Your task to perform on an android device: Open settings Image 0: 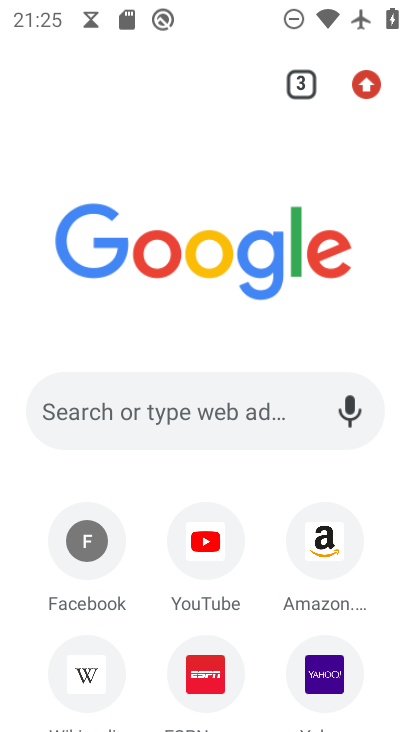
Step 0: press home button
Your task to perform on an android device: Open settings Image 1: 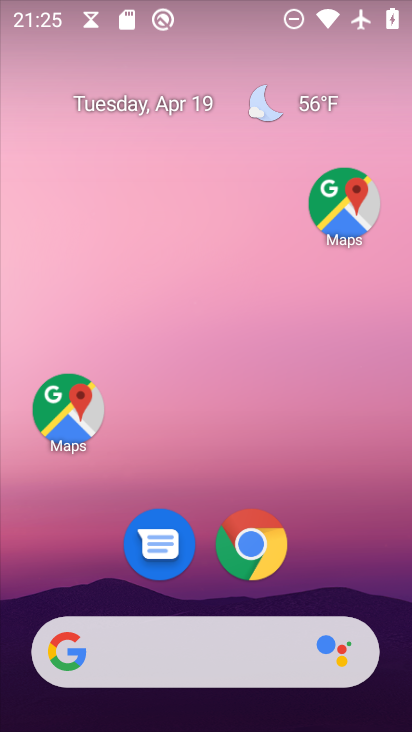
Step 1: drag from (189, 614) to (326, 63)
Your task to perform on an android device: Open settings Image 2: 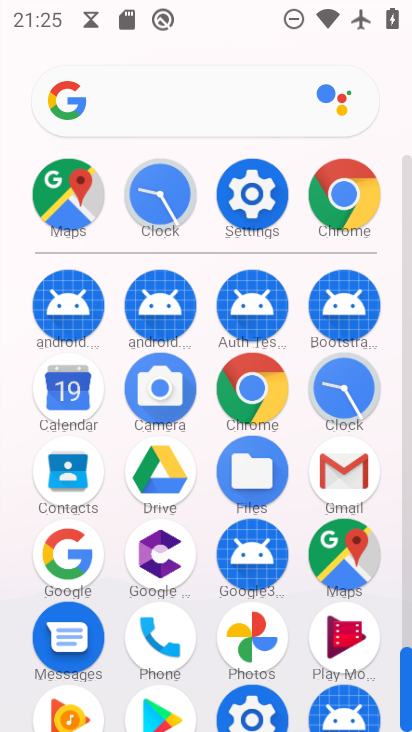
Step 2: click (258, 197)
Your task to perform on an android device: Open settings Image 3: 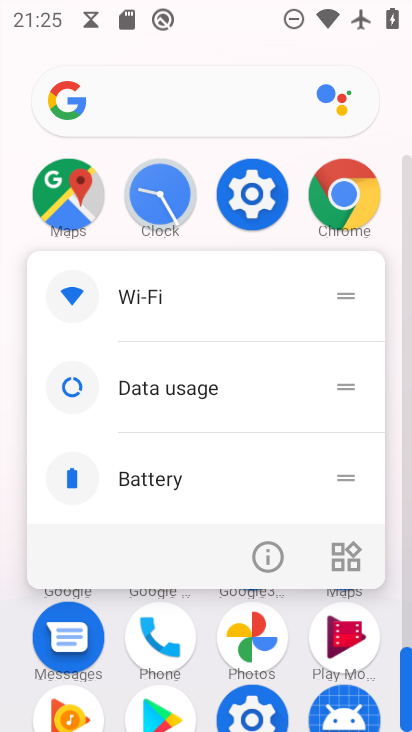
Step 3: click (255, 201)
Your task to perform on an android device: Open settings Image 4: 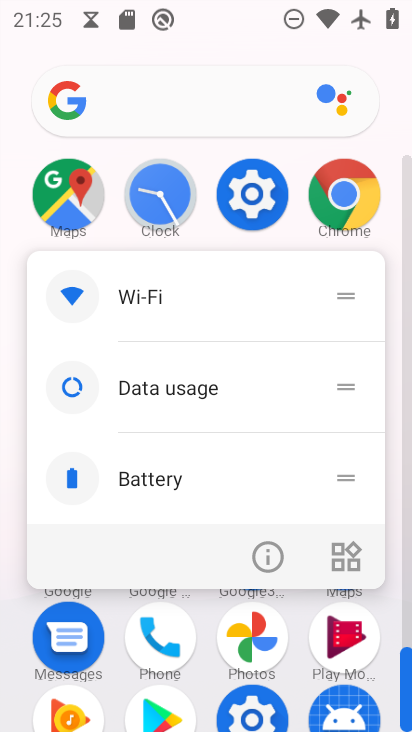
Step 4: click (251, 202)
Your task to perform on an android device: Open settings Image 5: 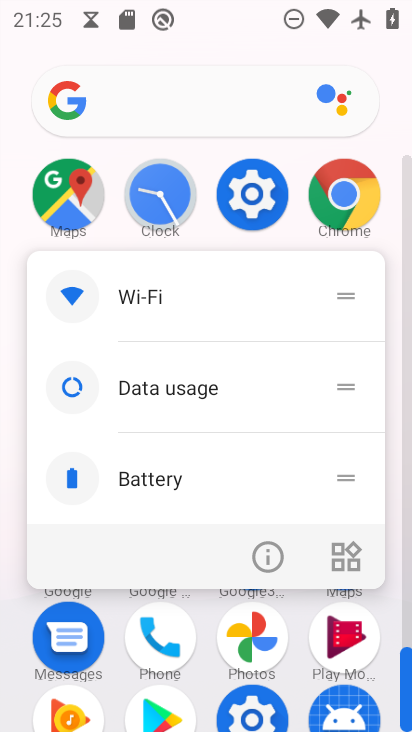
Step 5: click (259, 195)
Your task to perform on an android device: Open settings Image 6: 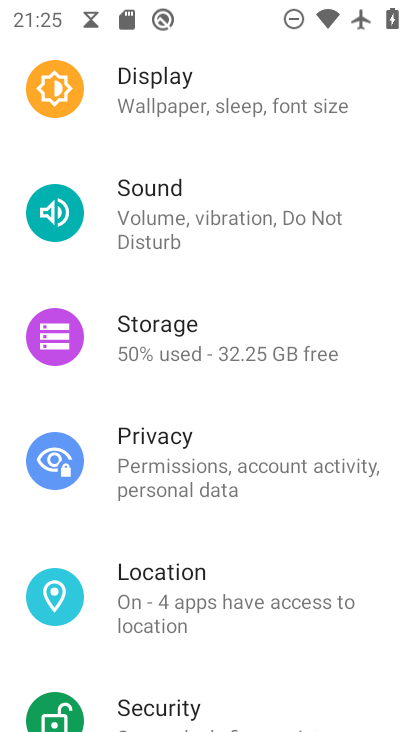
Step 6: task complete